Your task to perform on an android device: turn on translation in the chrome app Image 0: 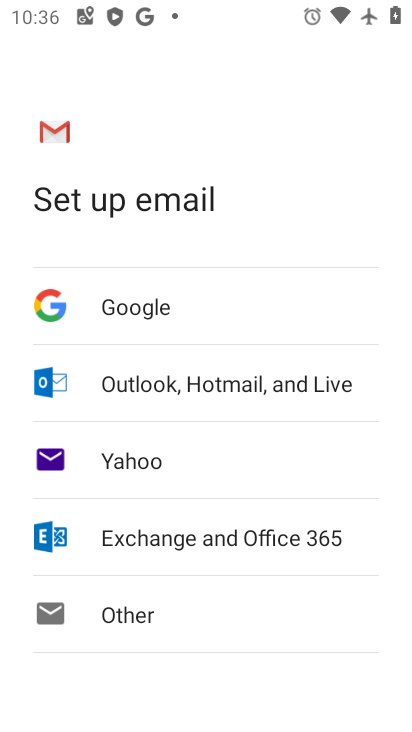
Step 0: press home button
Your task to perform on an android device: turn on translation in the chrome app Image 1: 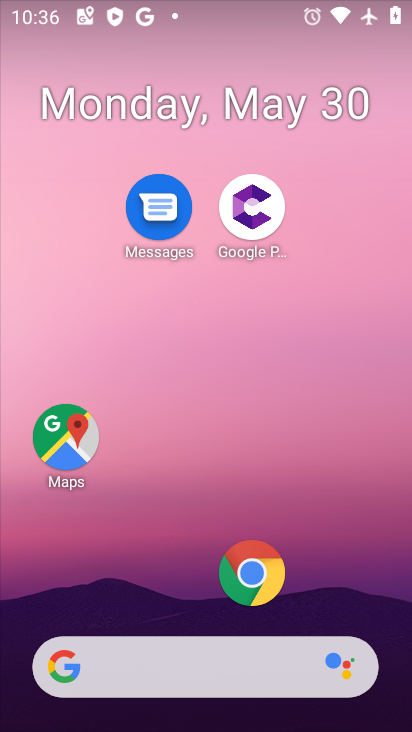
Step 1: drag from (134, 595) to (212, 194)
Your task to perform on an android device: turn on translation in the chrome app Image 2: 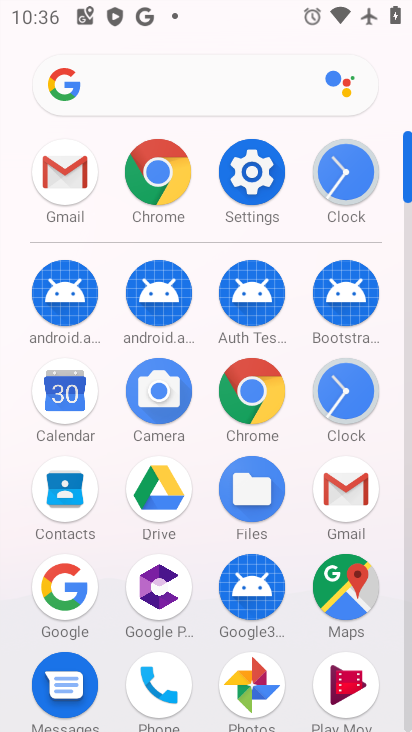
Step 2: click (157, 179)
Your task to perform on an android device: turn on translation in the chrome app Image 3: 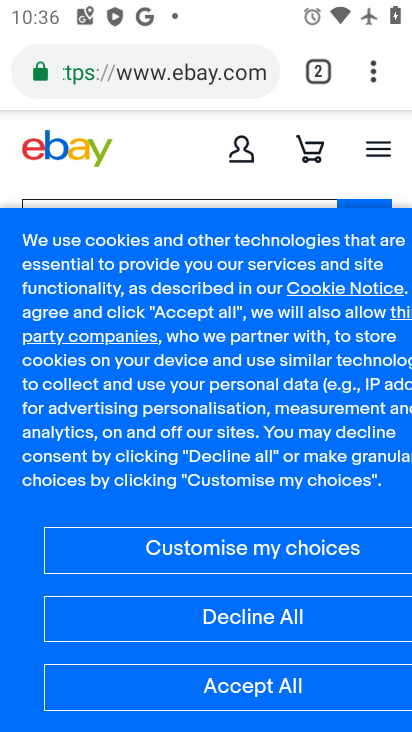
Step 3: click (374, 79)
Your task to perform on an android device: turn on translation in the chrome app Image 4: 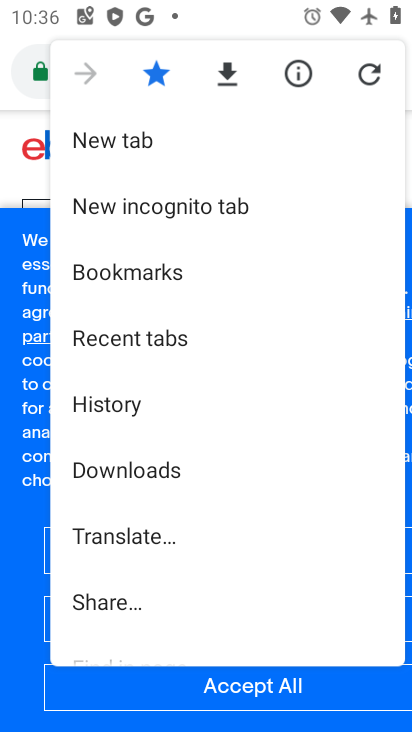
Step 4: click (155, 537)
Your task to perform on an android device: turn on translation in the chrome app Image 5: 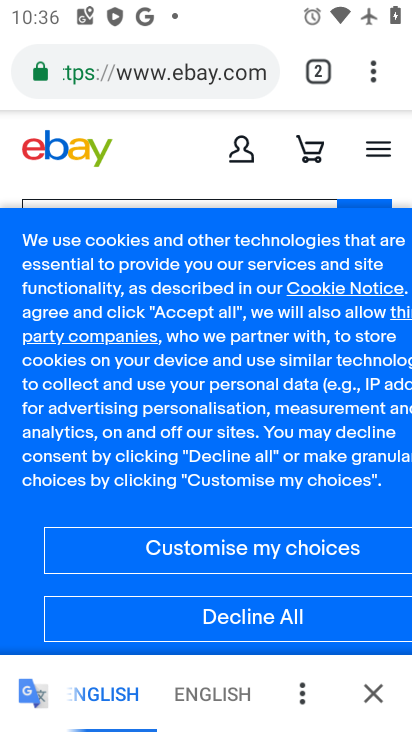
Step 5: click (300, 700)
Your task to perform on an android device: turn on translation in the chrome app Image 6: 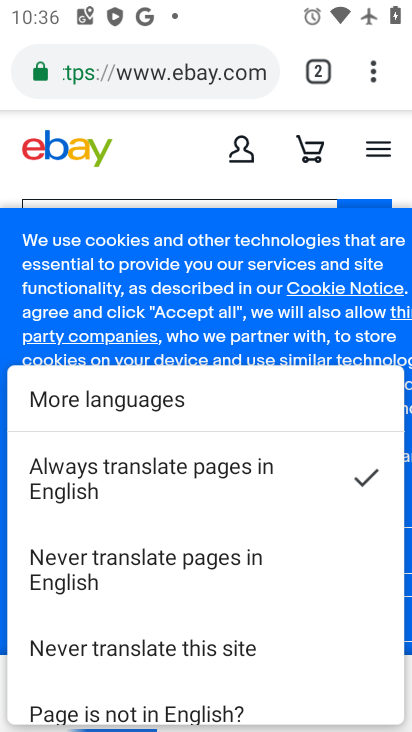
Step 6: task complete